Your task to perform on an android device: Open the phone app and click the voicemail tab. Image 0: 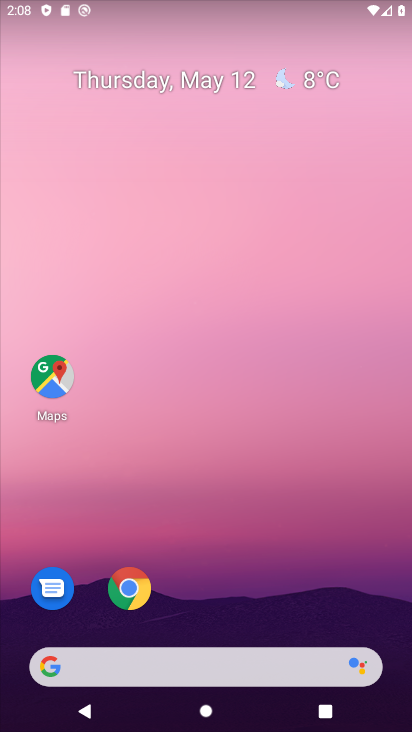
Step 0: drag from (271, 613) to (319, 250)
Your task to perform on an android device: Open the phone app and click the voicemail tab. Image 1: 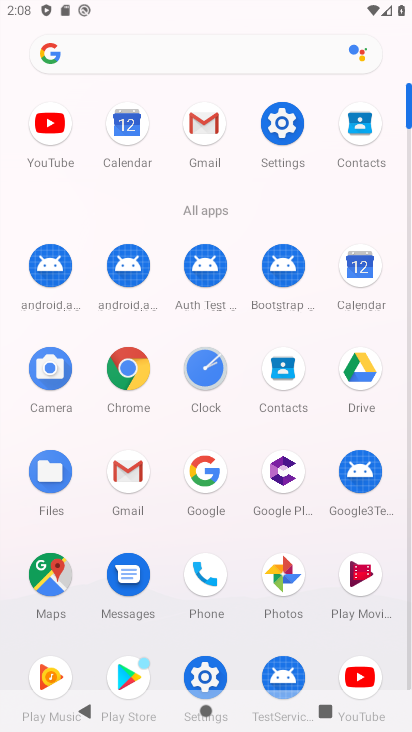
Step 1: click (211, 590)
Your task to perform on an android device: Open the phone app and click the voicemail tab. Image 2: 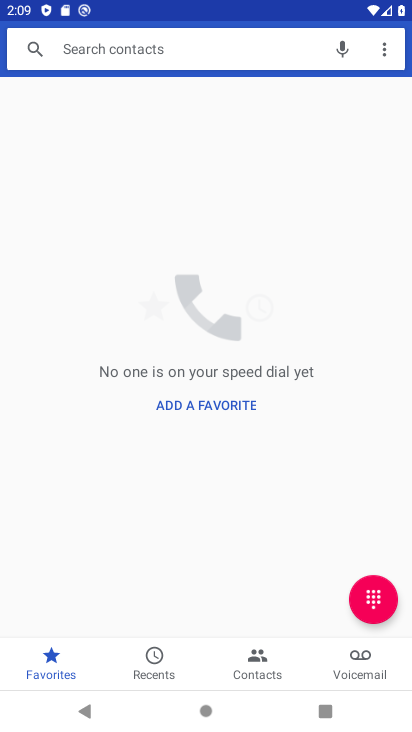
Step 2: click (336, 646)
Your task to perform on an android device: Open the phone app and click the voicemail tab. Image 3: 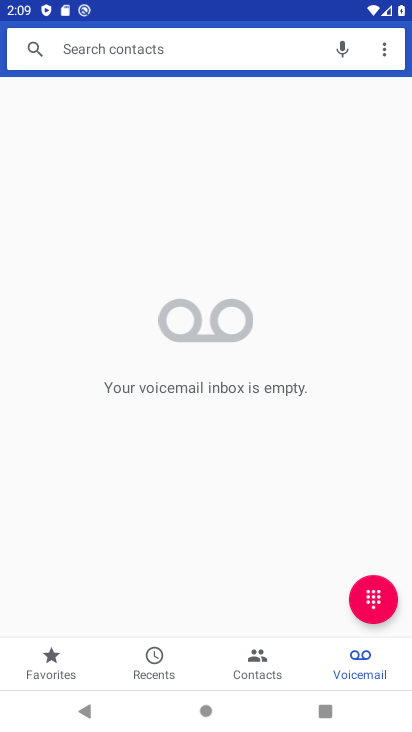
Step 3: task complete